Your task to perform on an android device: turn off data saver in the chrome app Image 0: 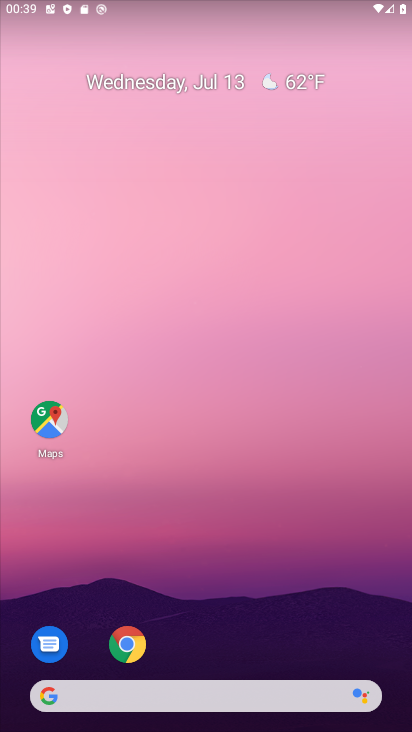
Step 0: click (138, 638)
Your task to perform on an android device: turn off data saver in the chrome app Image 1: 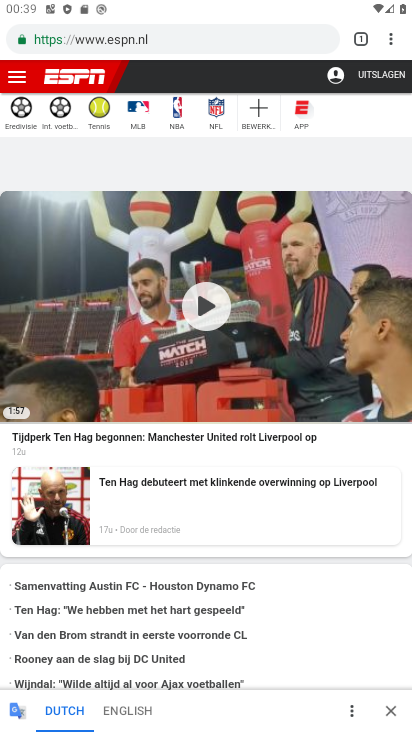
Step 1: click (395, 38)
Your task to perform on an android device: turn off data saver in the chrome app Image 2: 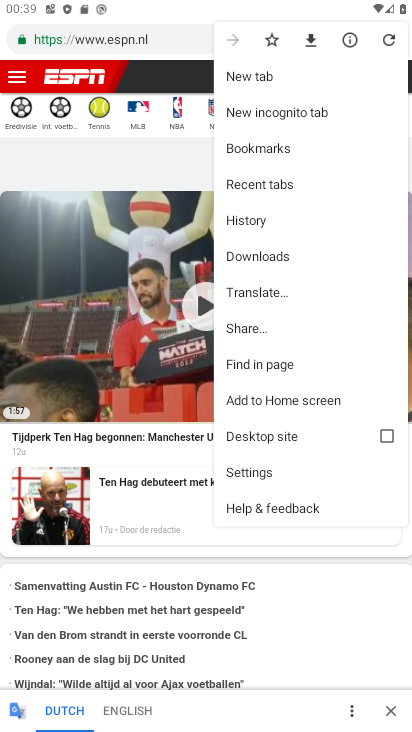
Step 2: click (267, 477)
Your task to perform on an android device: turn off data saver in the chrome app Image 3: 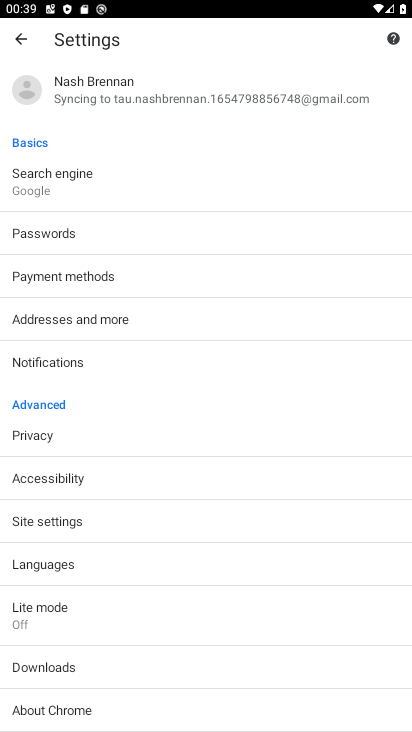
Step 3: click (121, 607)
Your task to perform on an android device: turn off data saver in the chrome app Image 4: 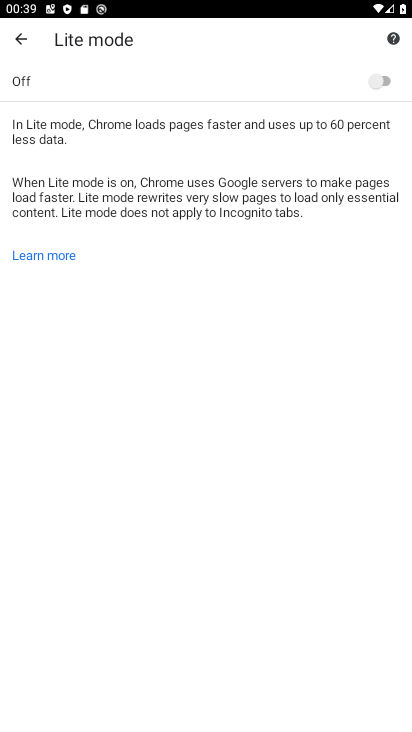
Step 4: task complete